Your task to perform on an android device: Open maps Image 0: 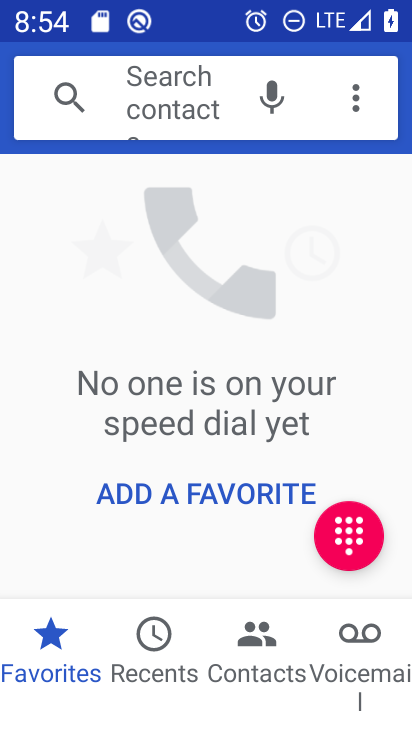
Step 0: press home button
Your task to perform on an android device: Open maps Image 1: 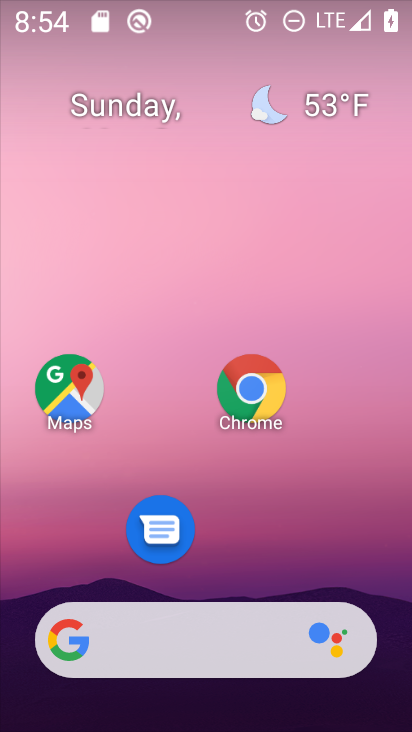
Step 1: click (81, 389)
Your task to perform on an android device: Open maps Image 2: 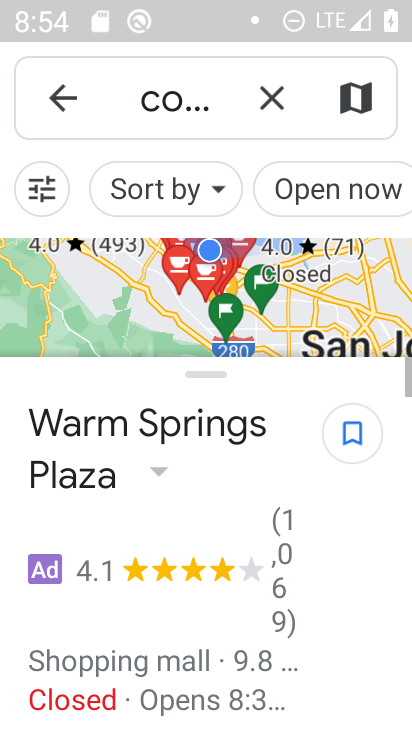
Step 2: click (62, 102)
Your task to perform on an android device: Open maps Image 3: 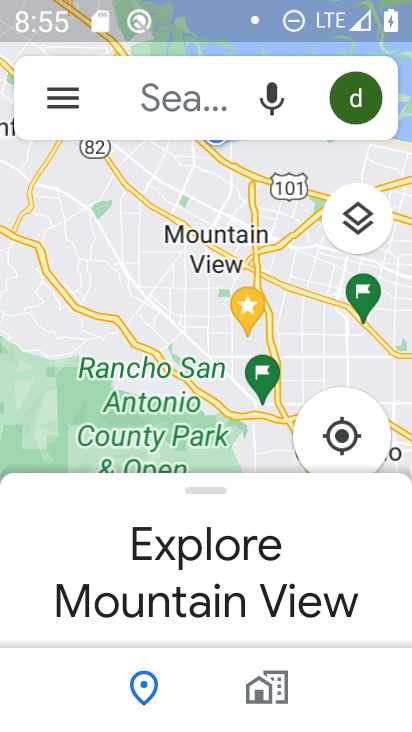
Step 3: task complete